Your task to perform on an android device: empty trash in the gmail app Image 0: 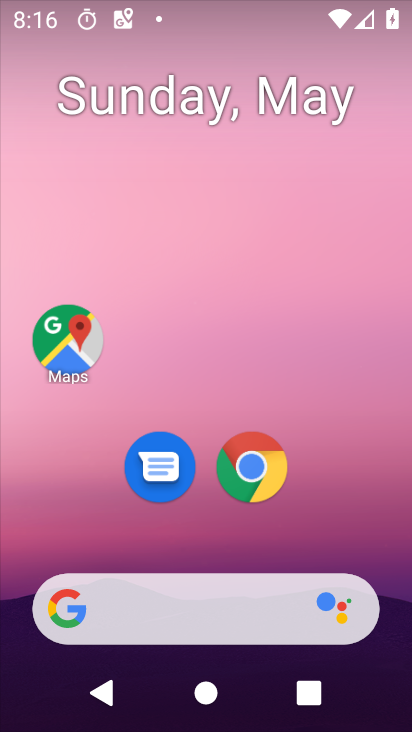
Step 0: drag from (110, 421) to (239, 162)
Your task to perform on an android device: empty trash in the gmail app Image 1: 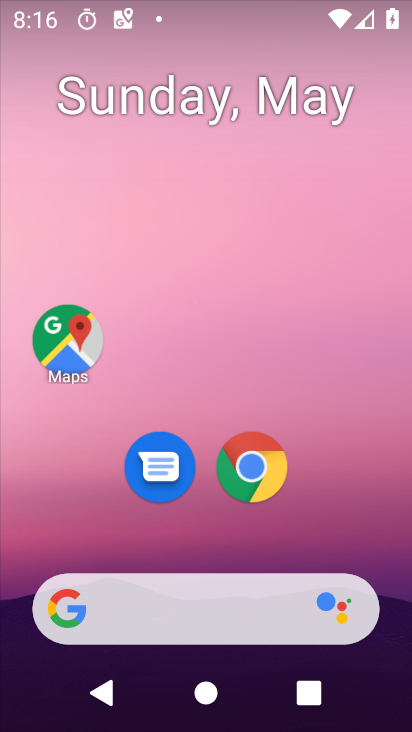
Step 1: drag from (62, 488) to (253, 112)
Your task to perform on an android device: empty trash in the gmail app Image 2: 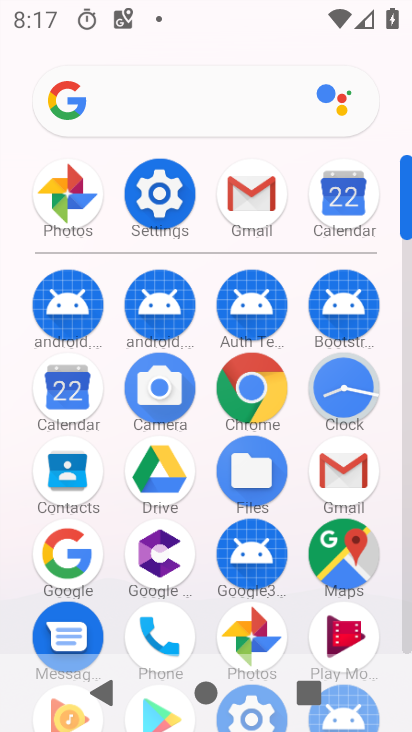
Step 2: click (261, 200)
Your task to perform on an android device: empty trash in the gmail app Image 3: 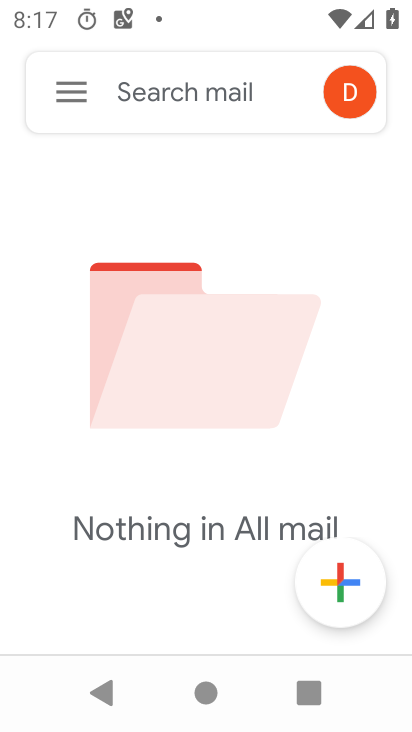
Step 3: click (74, 83)
Your task to perform on an android device: empty trash in the gmail app Image 4: 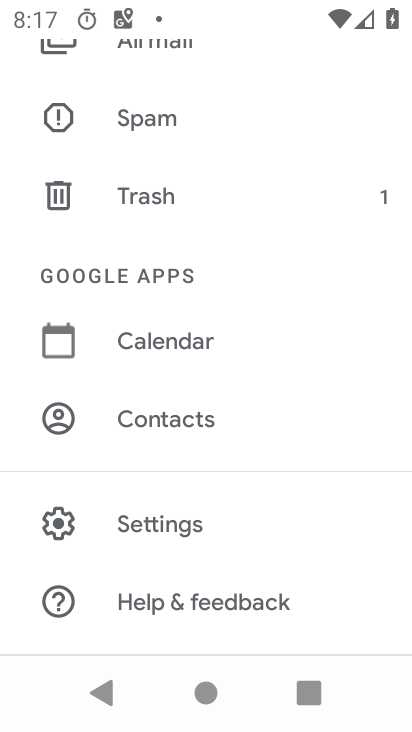
Step 4: click (141, 196)
Your task to perform on an android device: empty trash in the gmail app Image 5: 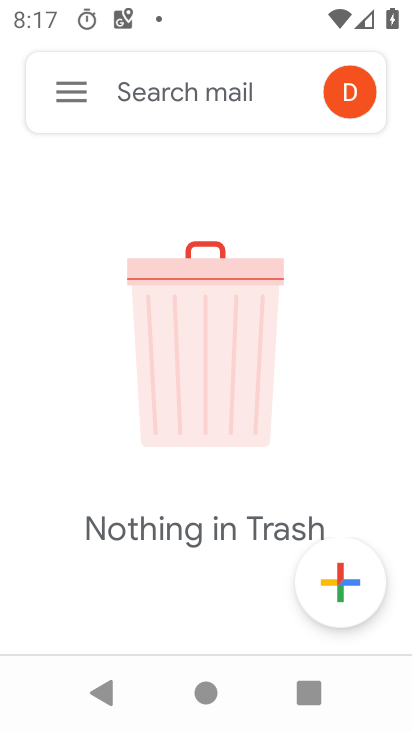
Step 5: task complete